Your task to perform on an android device: Is it going to rain today? Image 0: 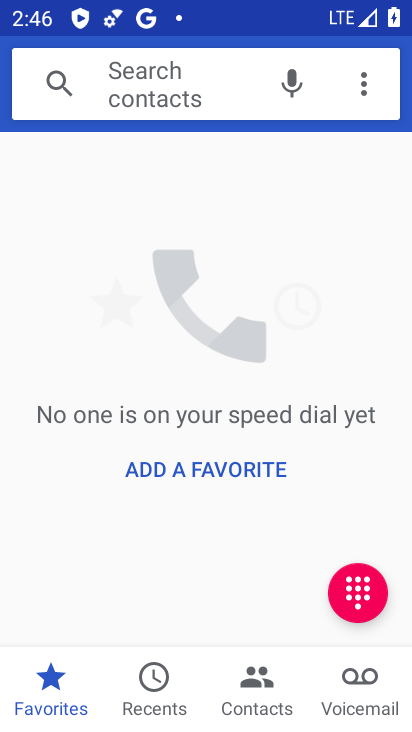
Step 0: press home button
Your task to perform on an android device: Is it going to rain today? Image 1: 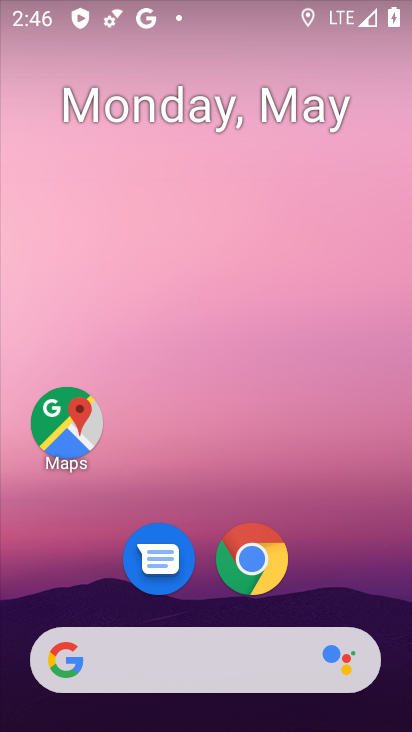
Step 1: click (140, 665)
Your task to perform on an android device: Is it going to rain today? Image 2: 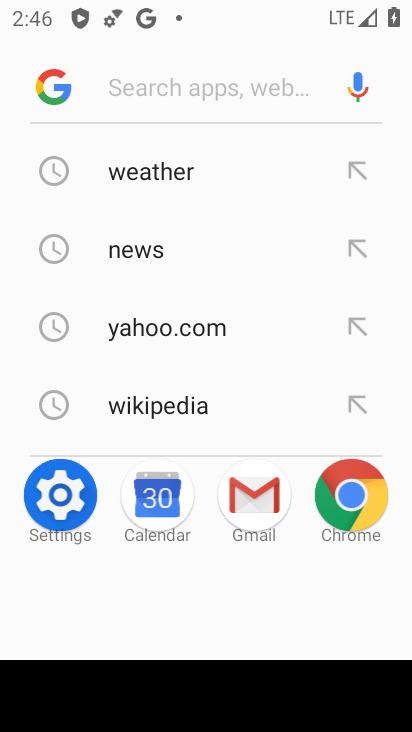
Step 2: type "is it going to rain today"
Your task to perform on an android device: Is it going to rain today? Image 3: 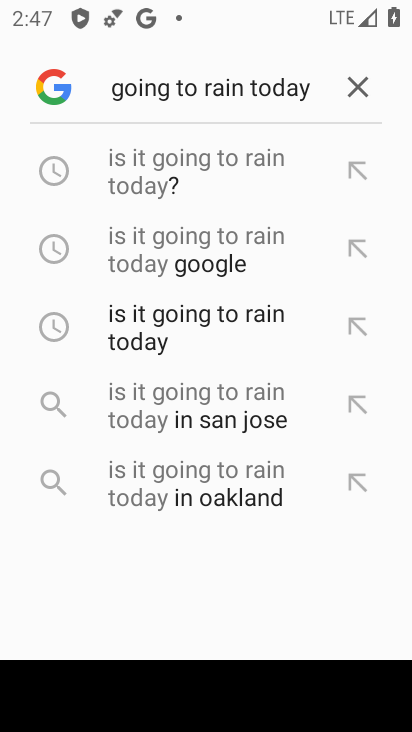
Step 3: click (137, 167)
Your task to perform on an android device: Is it going to rain today? Image 4: 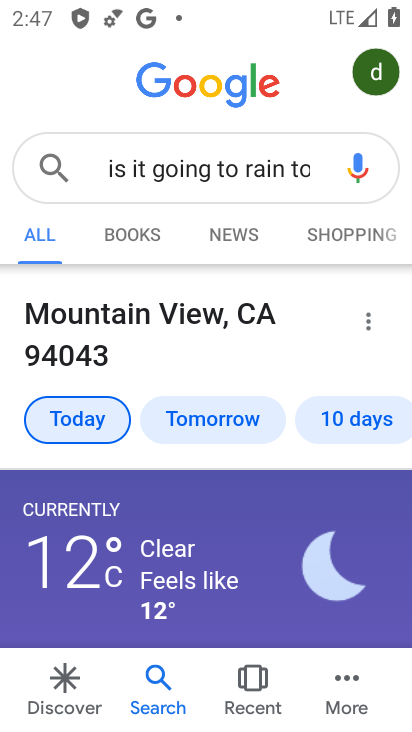
Step 4: task complete